Your task to perform on an android device: What's the news in Indonesia? Image 0: 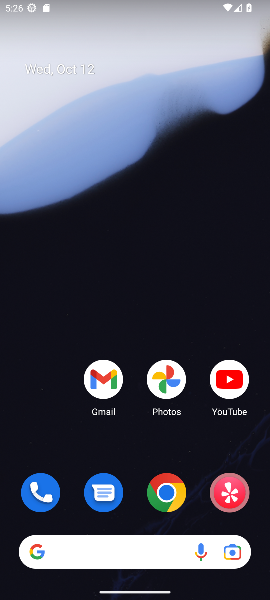
Step 0: click (171, 496)
Your task to perform on an android device: What's the news in Indonesia? Image 1: 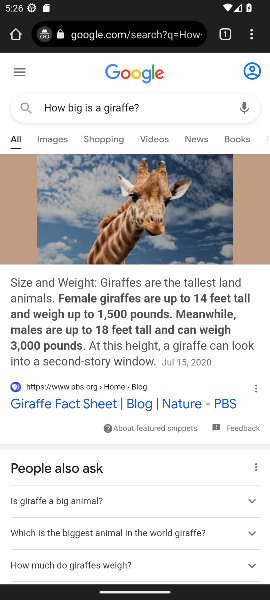
Step 1: click (93, 105)
Your task to perform on an android device: What's the news in Indonesia? Image 2: 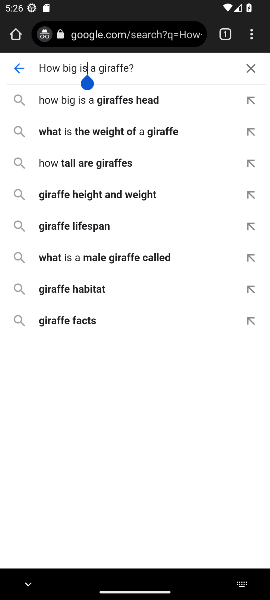
Step 2: click (250, 69)
Your task to perform on an android device: What's the news in Indonesia? Image 3: 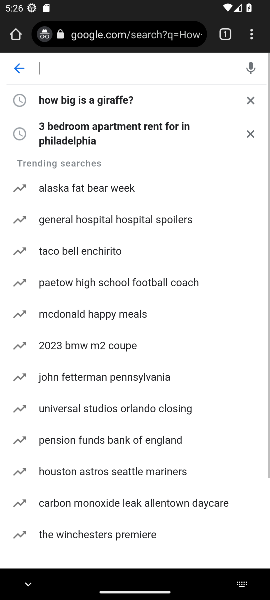
Step 3: click (82, 68)
Your task to perform on an android device: What's the news in Indonesia? Image 4: 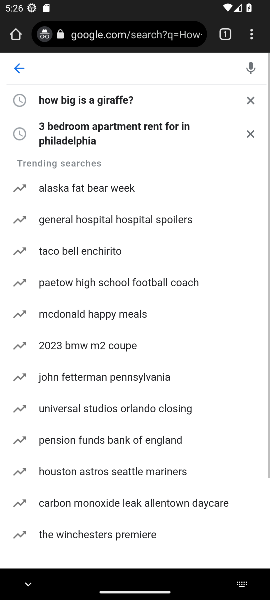
Step 4: type "Indonesia"
Your task to perform on an android device: What's the news in Indonesia? Image 5: 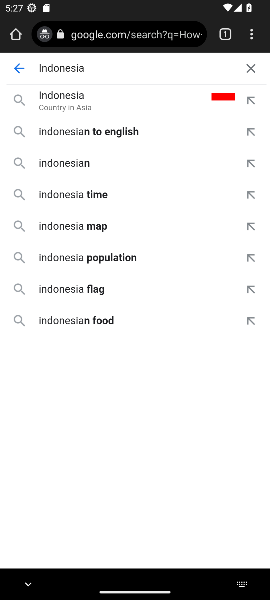
Step 5: click (51, 107)
Your task to perform on an android device: What's the news in Indonesia? Image 6: 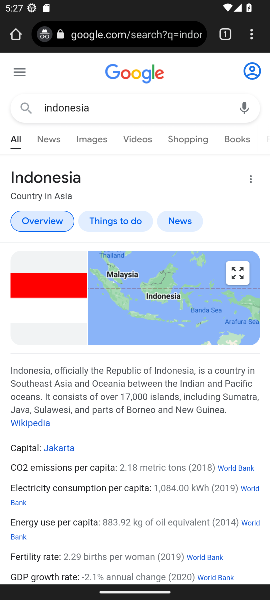
Step 6: click (45, 142)
Your task to perform on an android device: What's the news in Indonesia? Image 7: 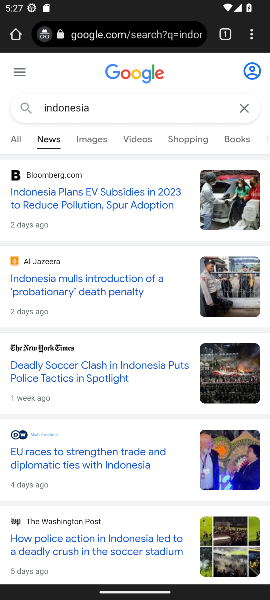
Step 7: click (42, 198)
Your task to perform on an android device: What's the news in Indonesia? Image 8: 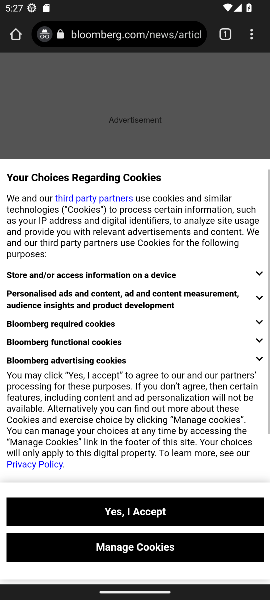
Step 8: task complete